Your task to perform on an android device: Open Google Chrome Image 0: 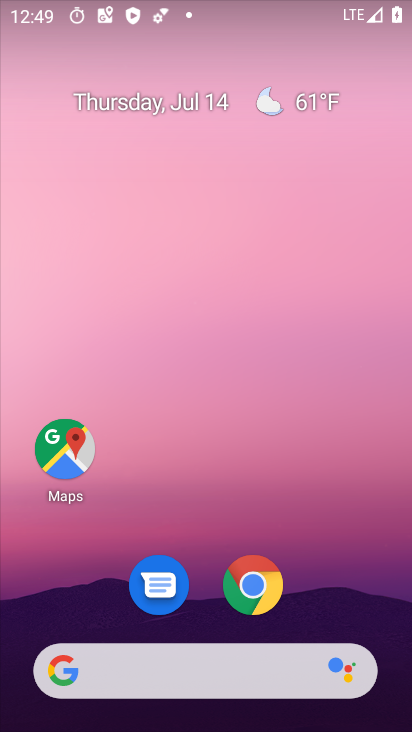
Step 0: click (257, 578)
Your task to perform on an android device: Open Google Chrome Image 1: 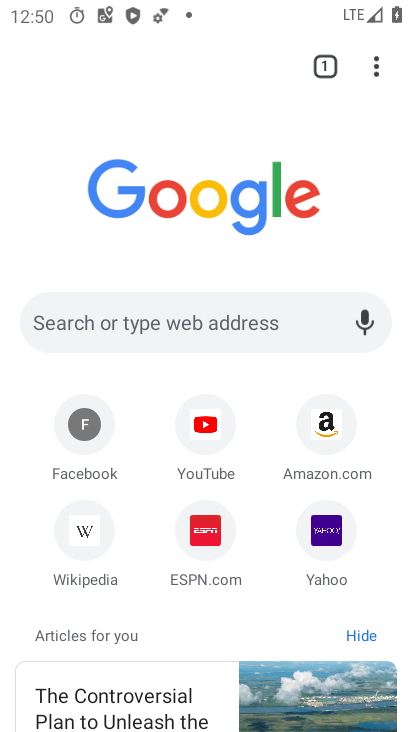
Step 1: press home button
Your task to perform on an android device: Open Google Chrome Image 2: 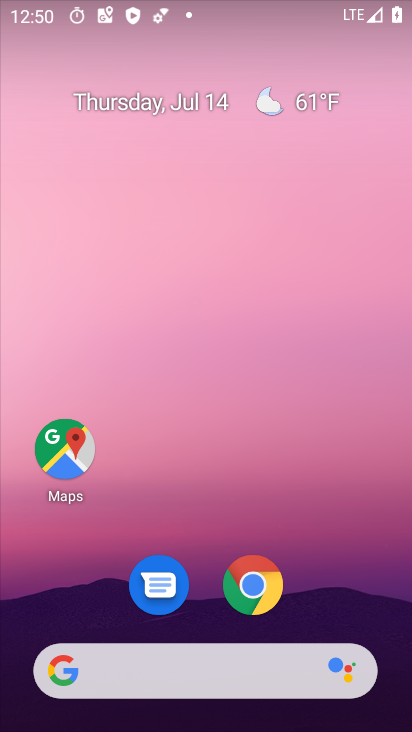
Step 2: click (260, 595)
Your task to perform on an android device: Open Google Chrome Image 3: 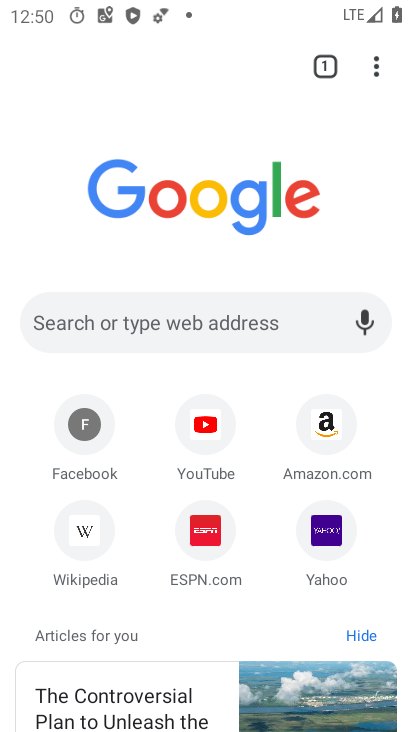
Step 3: task complete